Your task to perform on an android device: toggle improve location accuracy Image 0: 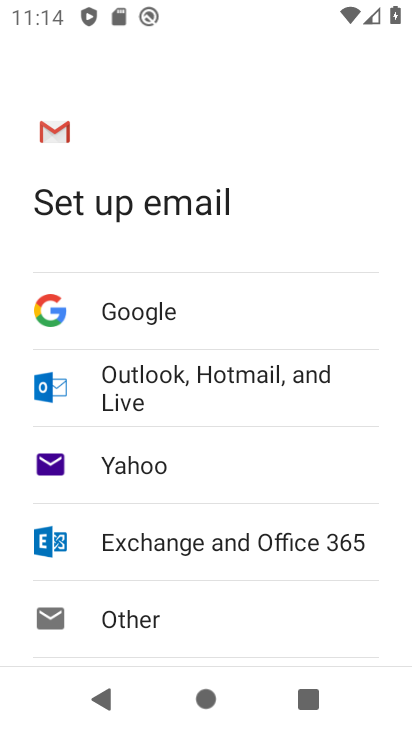
Step 0: press home button
Your task to perform on an android device: toggle improve location accuracy Image 1: 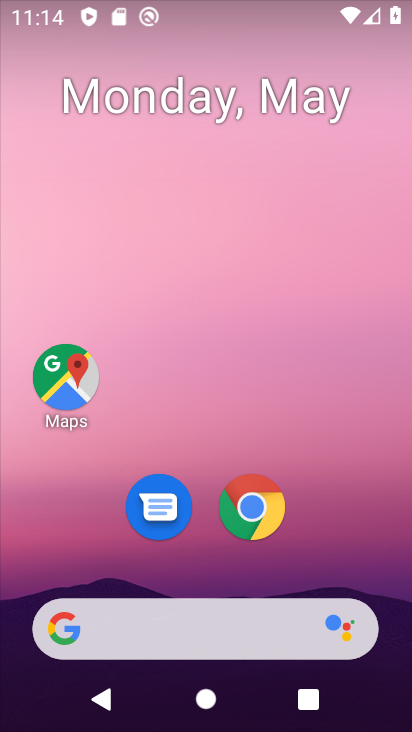
Step 1: drag from (346, 540) to (277, 137)
Your task to perform on an android device: toggle improve location accuracy Image 2: 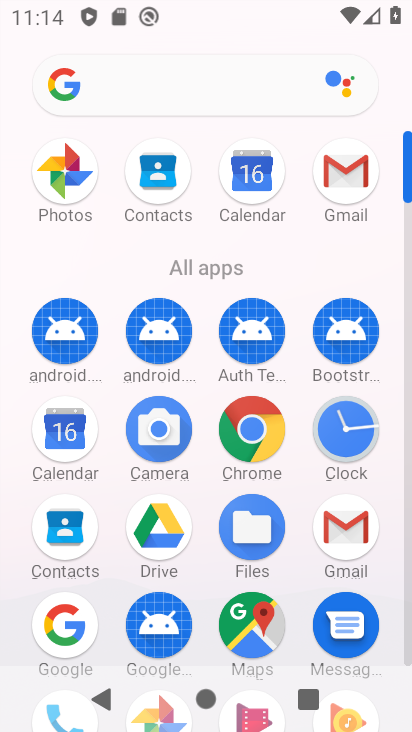
Step 2: click (407, 651)
Your task to perform on an android device: toggle improve location accuracy Image 3: 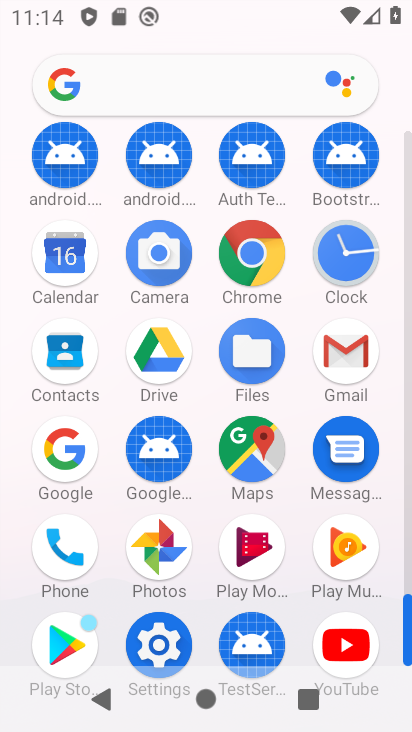
Step 3: click (156, 653)
Your task to perform on an android device: toggle improve location accuracy Image 4: 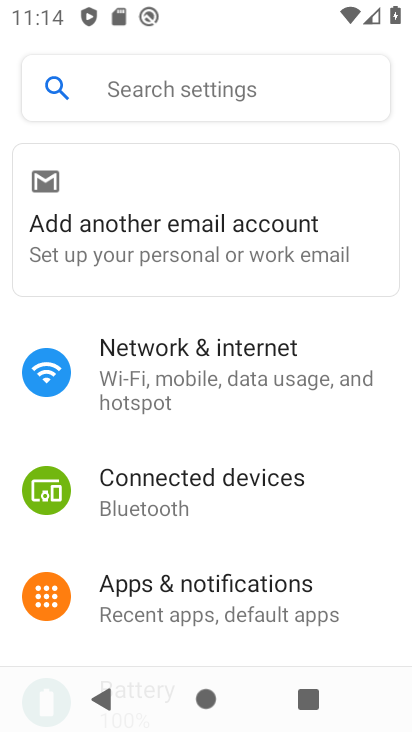
Step 4: drag from (243, 648) to (231, 72)
Your task to perform on an android device: toggle improve location accuracy Image 5: 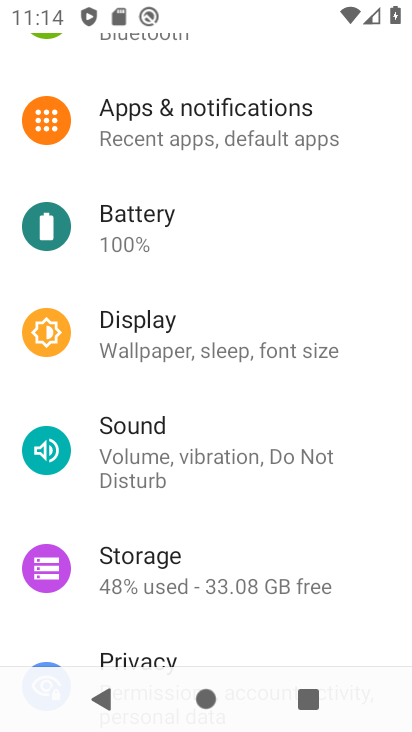
Step 5: drag from (250, 640) to (243, 183)
Your task to perform on an android device: toggle improve location accuracy Image 6: 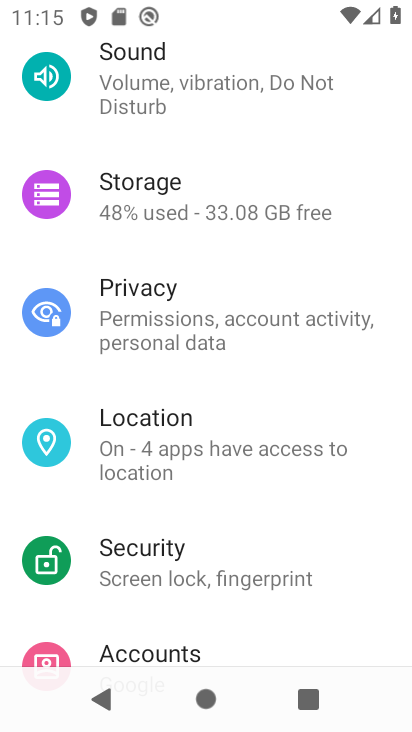
Step 6: click (225, 422)
Your task to perform on an android device: toggle improve location accuracy Image 7: 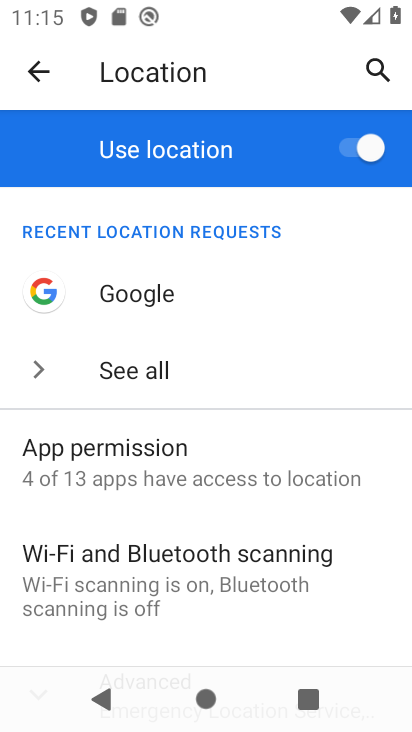
Step 7: drag from (221, 628) to (236, 171)
Your task to perform on an android device: toggle improve location accuracy Image 8: 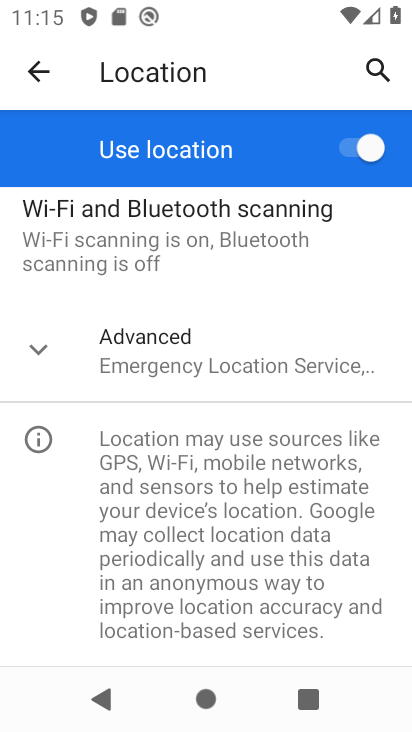
Step 8: click (235, 372)
Your task to perform on an android device: toggle improve location accuracy Image 9: 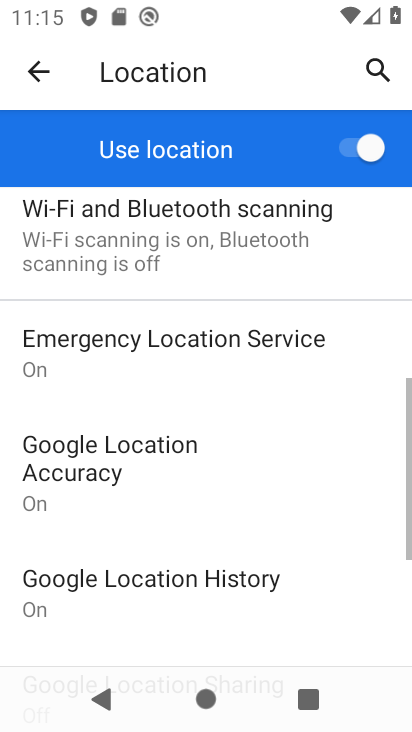
Step 9: drag from (260, 505) to (243, 259)
Your task to perform on an android device: toggle improve location accuracy Image 10: 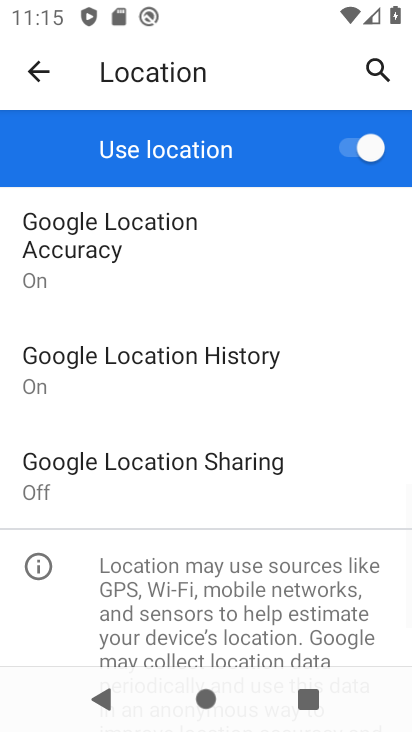
Step 10: click (242, 261)
Your task to perform on an android device: toggle improve location accuracy Image 11: 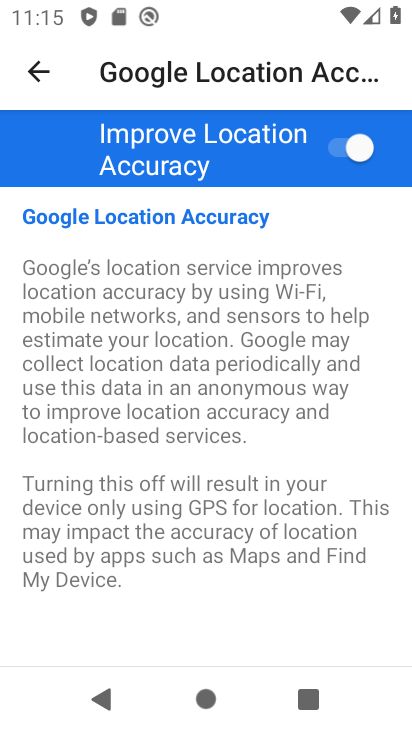
Step 11: click (342, 139)
Your task to perform on an android device: toggle improve location accuracy Image 12: 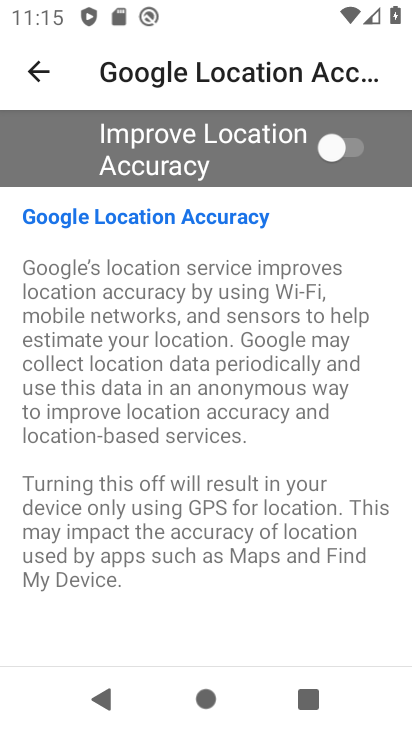
Step 12: task complete